Your task to perform on an android device: uninstall "Booking.com: Hotels and more" Image 0: 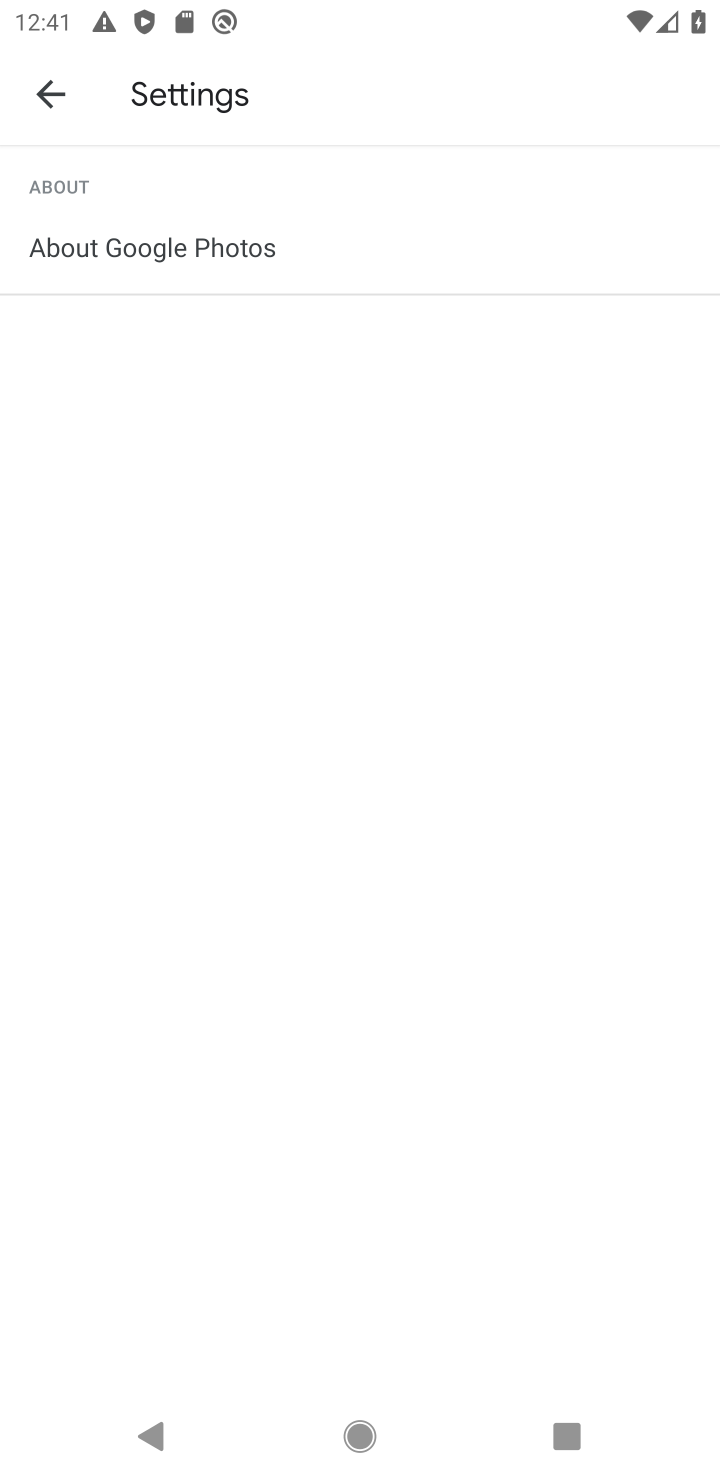
Step 0: press home button
Your task to perform on an android device: uninstall "Booking.com: Hotels and more" Image 1: 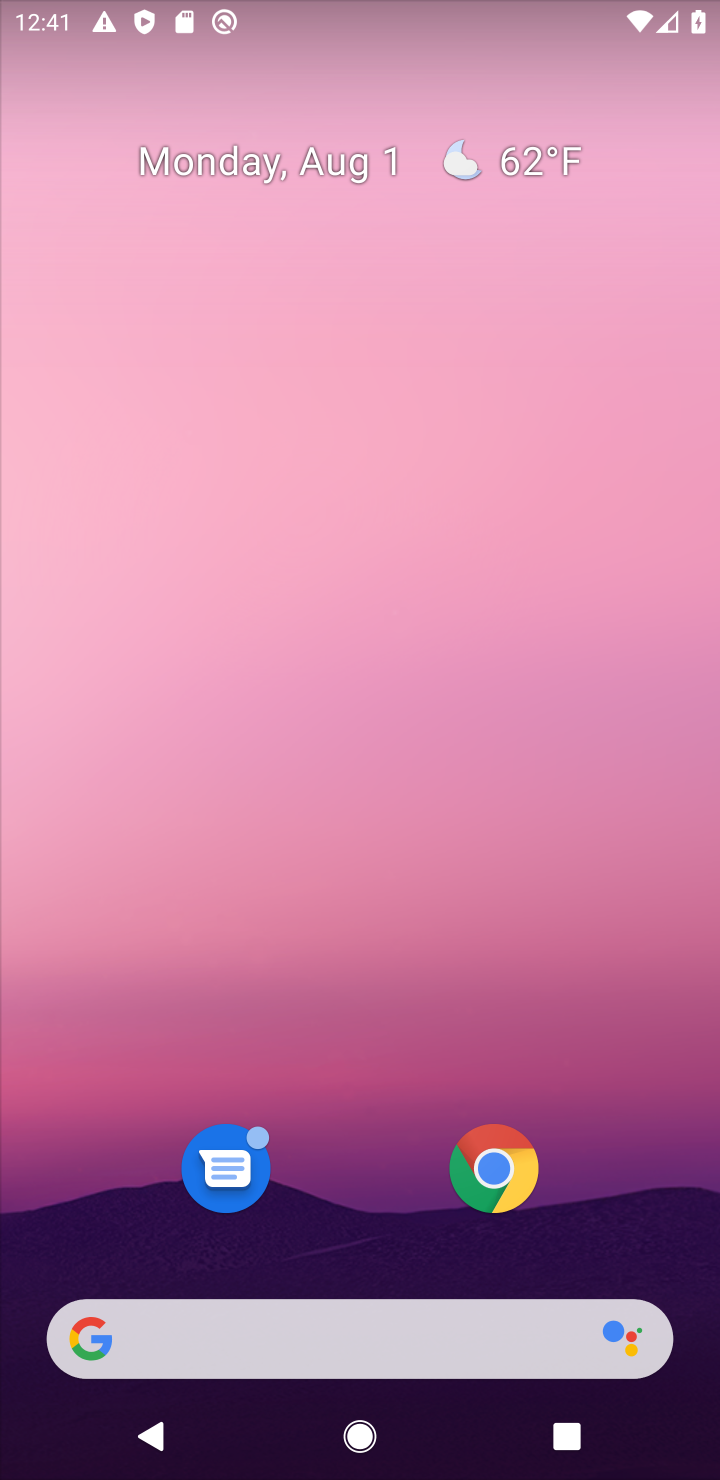
Step 1: drag from (415, 999) to (412, 73)
Your task to perform on an android device: uninstall "Booking.com: Hotels and more" Image 2: 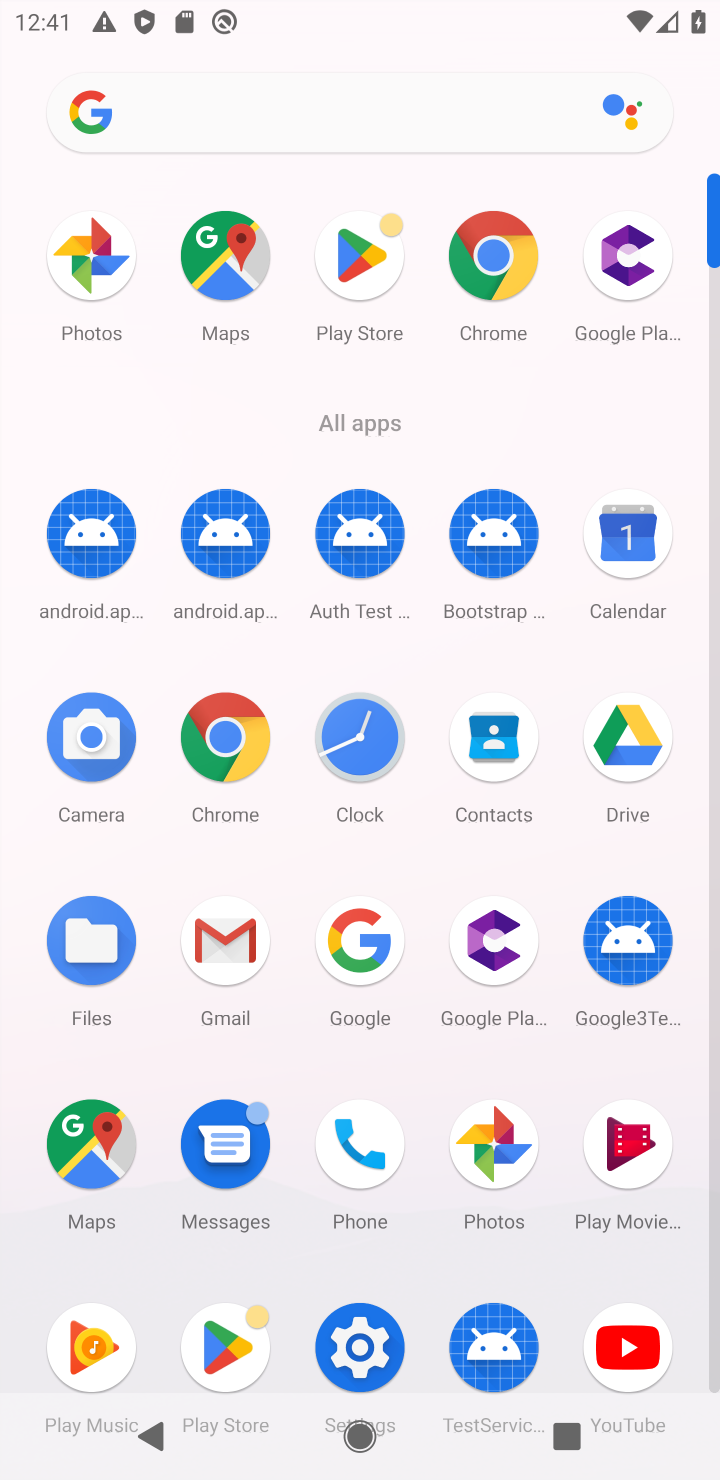
Step 2: click (367, 248)
Your task to perform on an android device: uninstall "Booking.com: Hotels and more" Image 3: 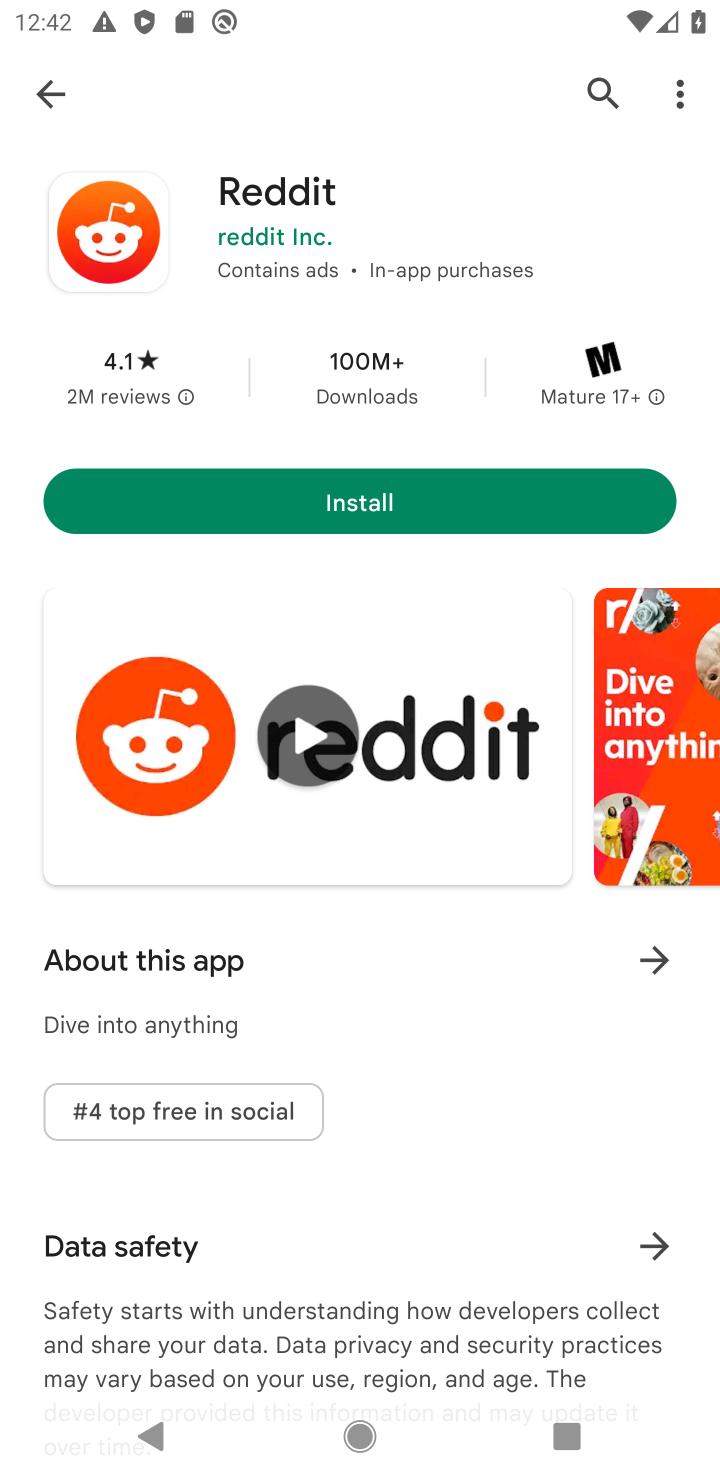
Step 3: click (600, 91)
Your task to perform on an android device: uninstall "Booking.com: Hotels and more" Image 4: 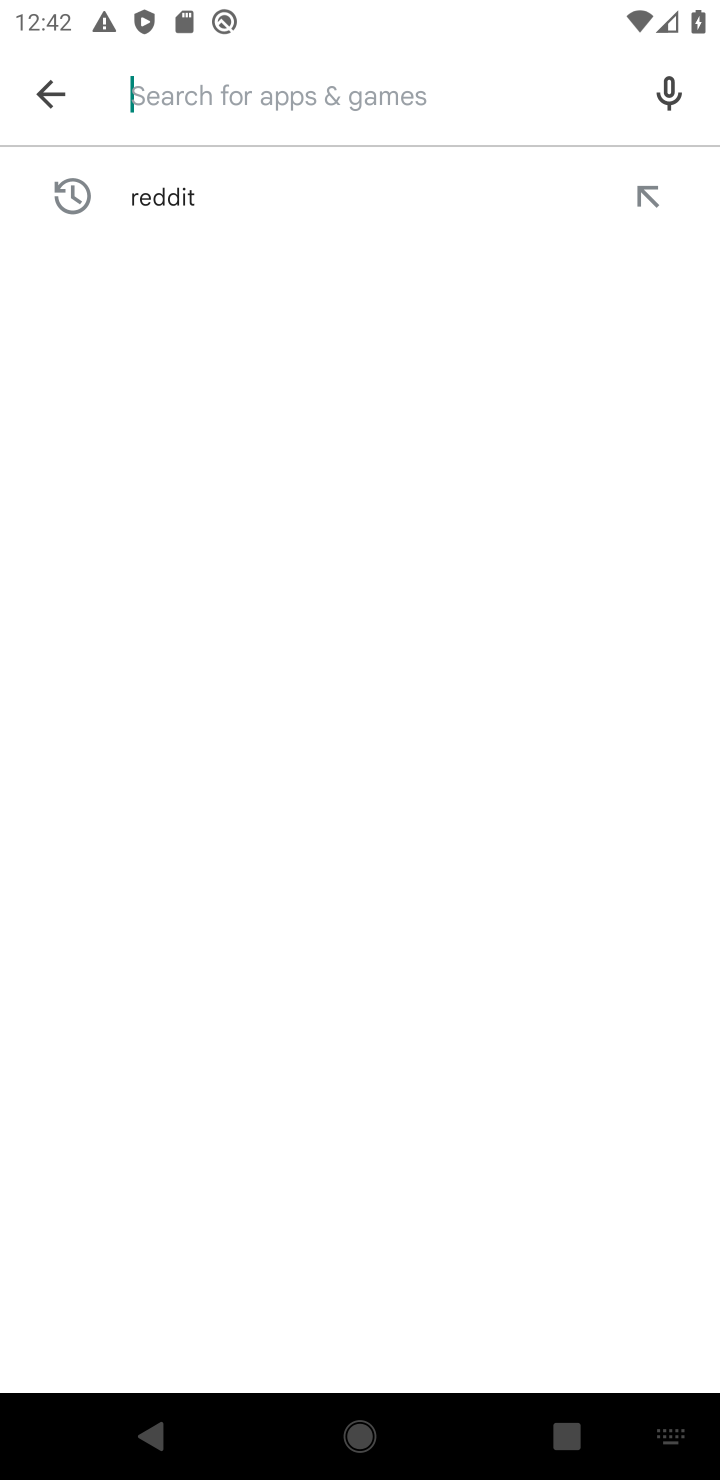
Step 4: type "Booking.com: Hotels and more"
Your task to perform on an android device: uninstall "Booking.com: Hotels and more" Image 5: 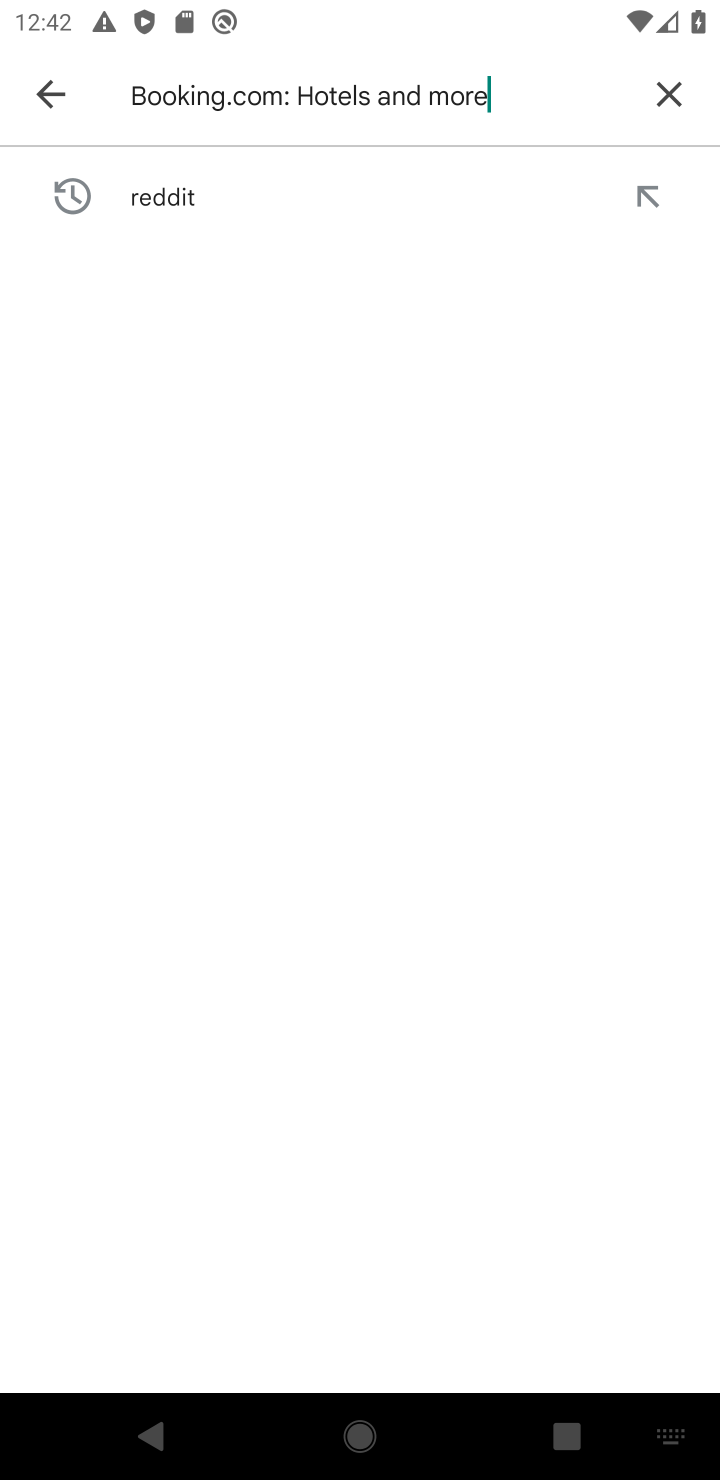
Step 5: type ""
Your task to perform on an android device: uninstall "Booking.com: Hotels and more" Image 6: 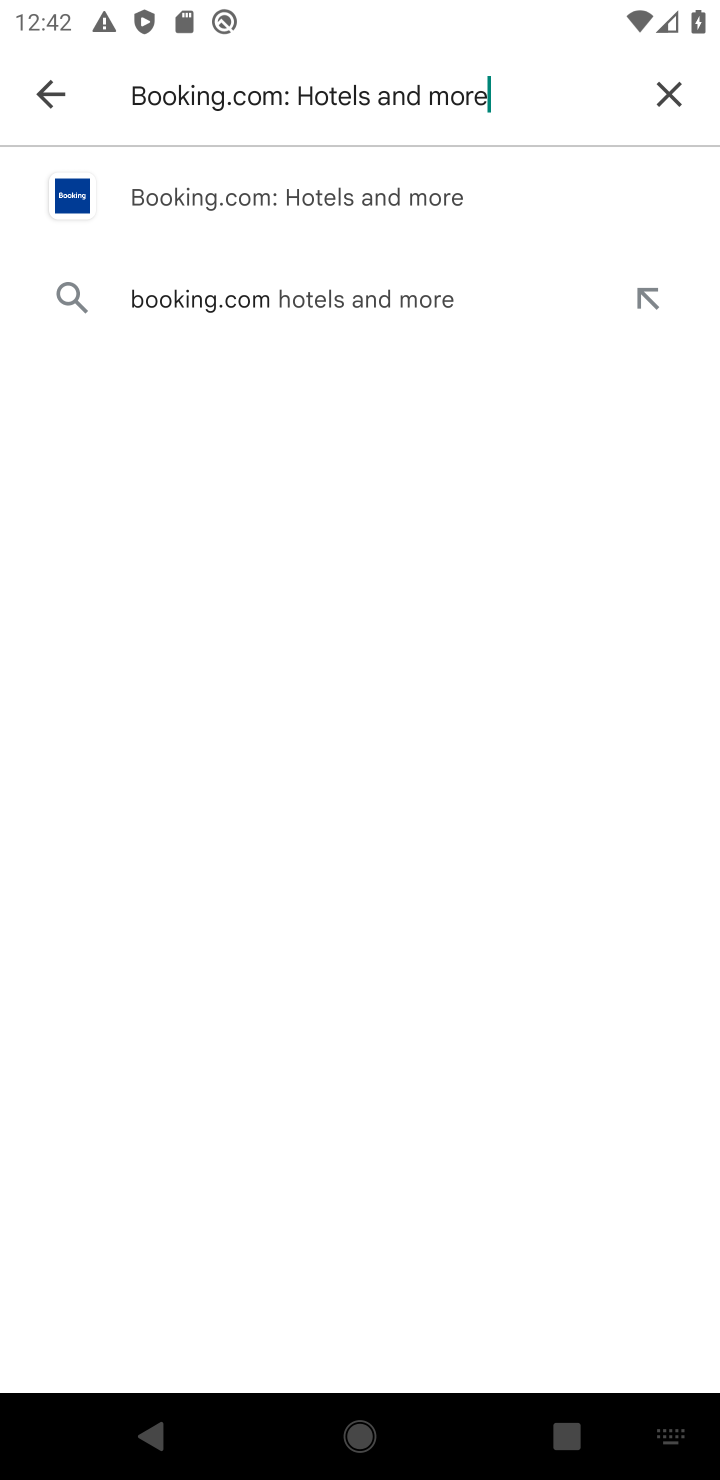
Step 6: click (310, 201)
Your task to perform on an android device: uninstall "Booking.com: Hotels and more" Image 7: 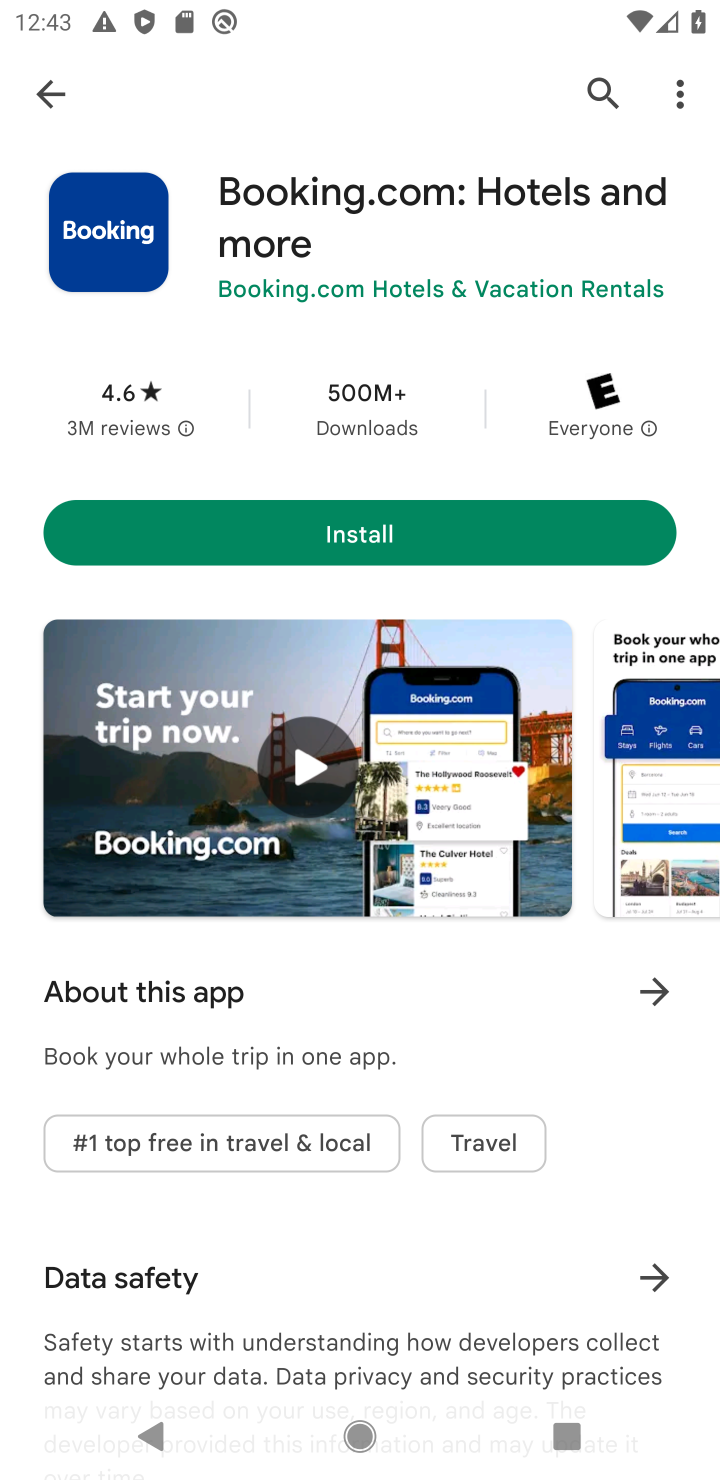
Step 7: task complete